Your task to perform on an android device: toggle pop-ups in chrome Image 0: 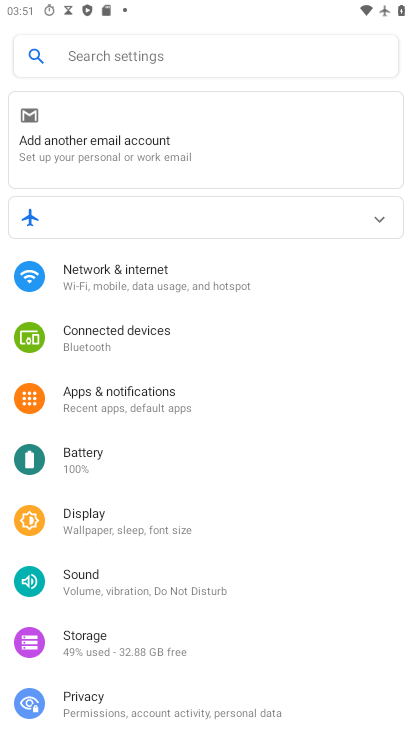
Step 0: press back button
Your task to perform on an android device: toggle pop-ups in chrome Image 1: 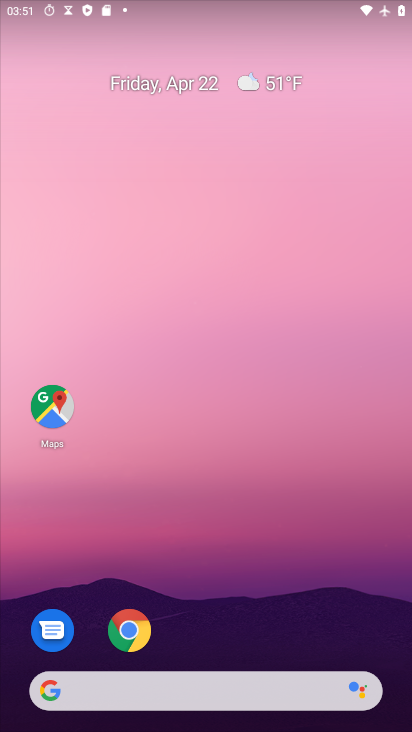
Step 1: drag from (293, 362) to (303, 38)
Your task to perform on an android device: toggle pop-ups in chrome Image 2: 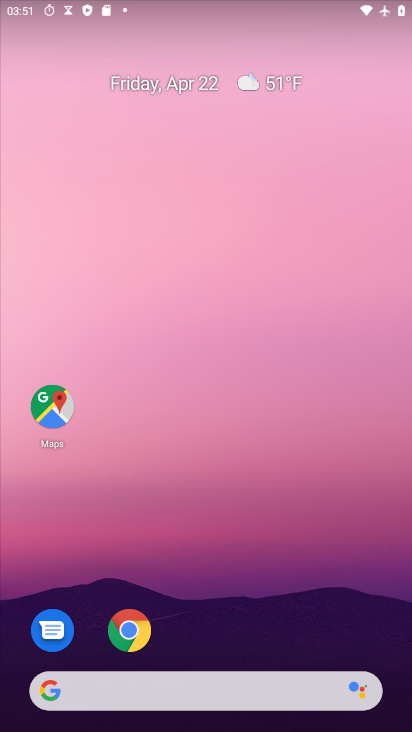
Step 2: drag from (244, 538) to (239, 11)
Your task to perform on an android device: toggle pop-ups in chrome Image 3: 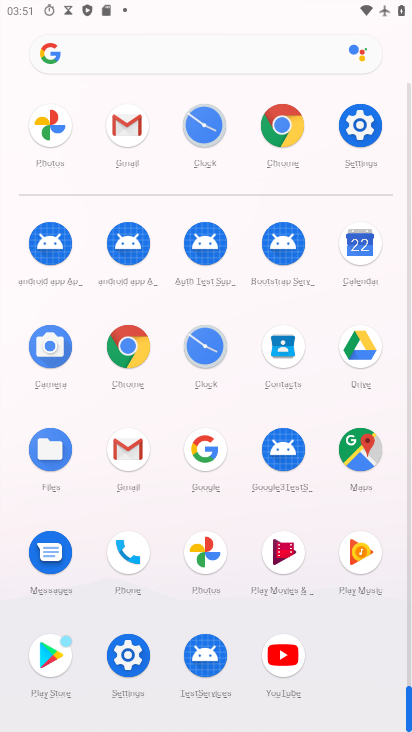
Step 3: click (129, 347)
Your task to perform on an android device: toggle pop-ups in chrome Image 4: 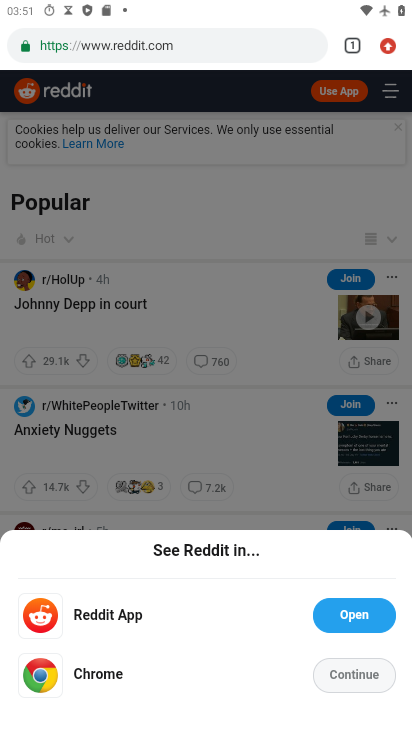
Step 4: drag from (390, 37) to (221, 585)
Your task to perform on an android device: toggle pop-ups in chrome Image 5: 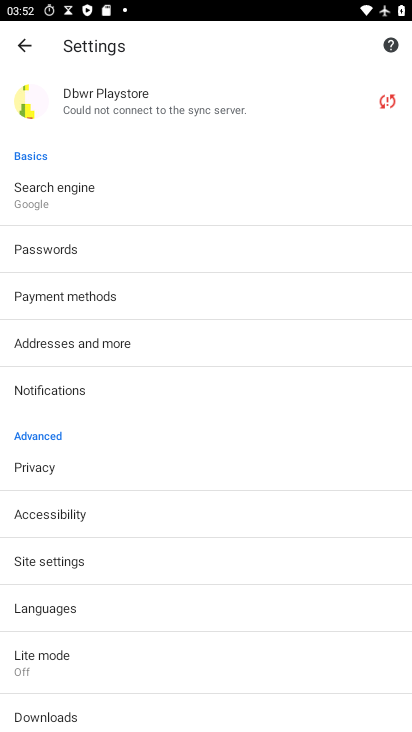
Step 5: click (73, 566)
Your task to perform on an android device: toggle pop-ups in chrome Image 6: 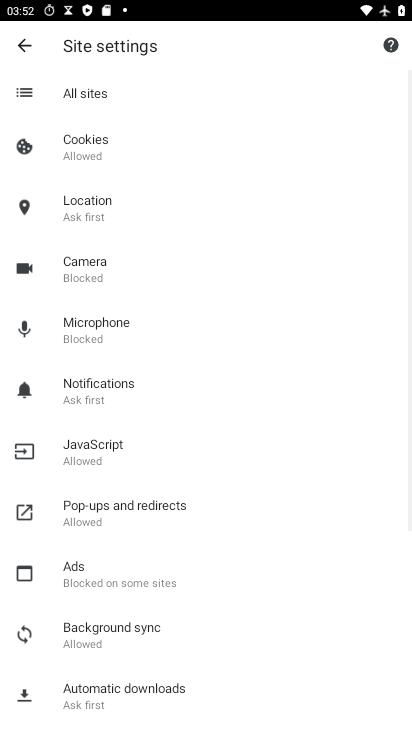
Step 6: task complete